Your task to perform on an android device: Search for hotels in Tokyo Image 0: 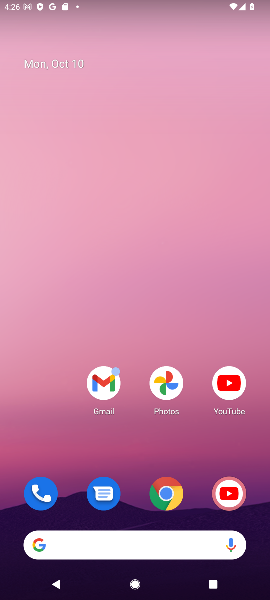
Step 0: click (102, 546)
Your task to perform on an android device: Search for hotels in Tokyo Image 1: 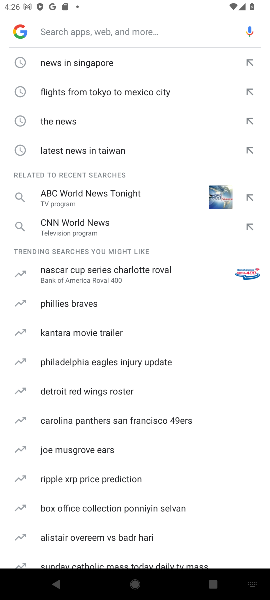
Step 1: type "Search for hotels in Tokyo"
Your task to perform on an android device: Search for hotels in Tokyo Image 2: 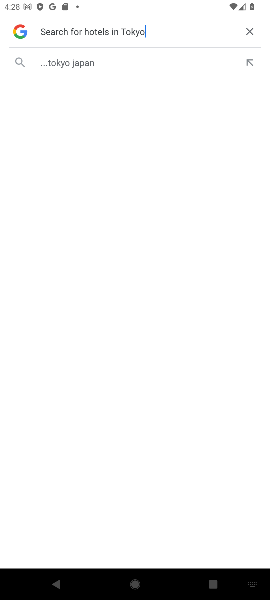
Step 2: click (193, 68)
Your task to perform on an android device: Search for hotels in Tokyo Image 3: 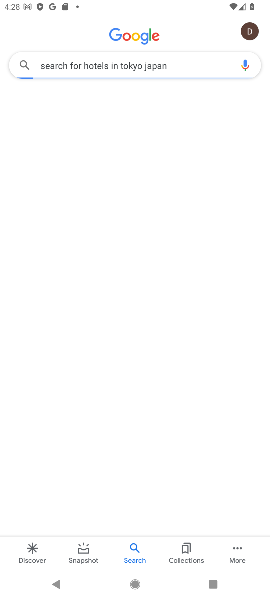
Step 3: task complete